Your task to perform on an android device: Search for 24"x36" picture frame on Home Depot. Image 0: 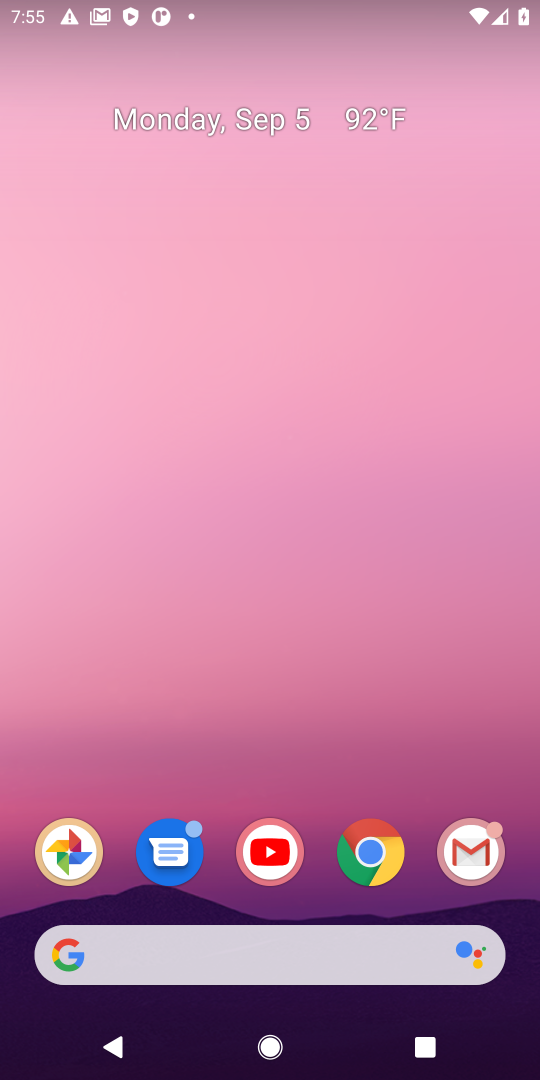
Step 0: click (369, 857)
Your task to perform on an android device: Search for 24"x36" picture frame on Home Depot. Image 1: 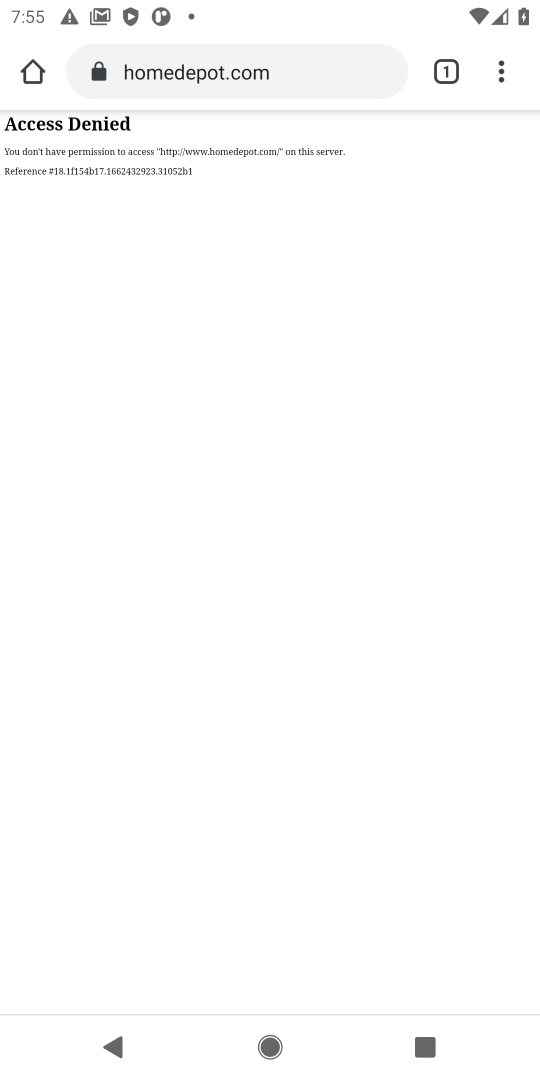
Step 1: click (378, 83)
Your task to perform on an android device: Search for 24"x36" picture frame on Home Depot. Image 2: 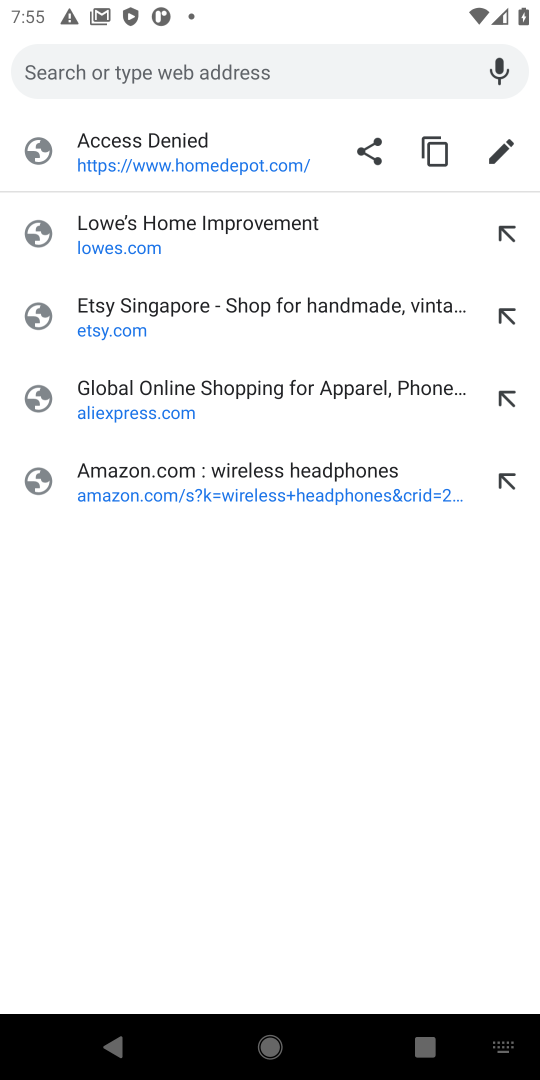
Step 2: type "home depot"
Your task to perform on an android device: Search for 24"x36" picture frame on Home Depot. Image 3: 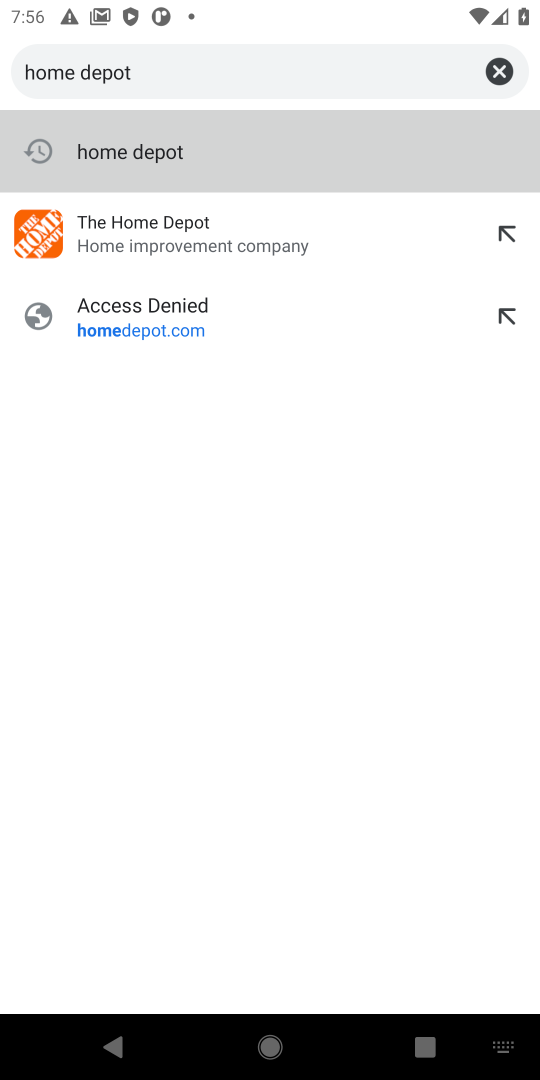
Step 3: press enter
Your task to perform on an android device: Search for 24"x36" picture frame on Home Depot. Image 4: 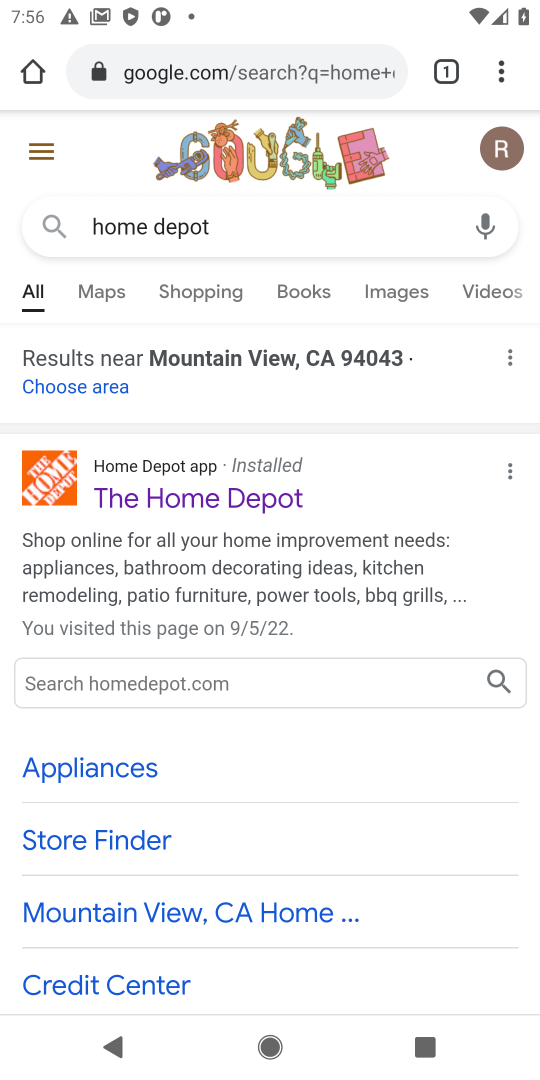
Step 4: click (240, 491)
Your task to perform on an android device: Search for 24"x36" picture frame on Home Depot. Image 5: 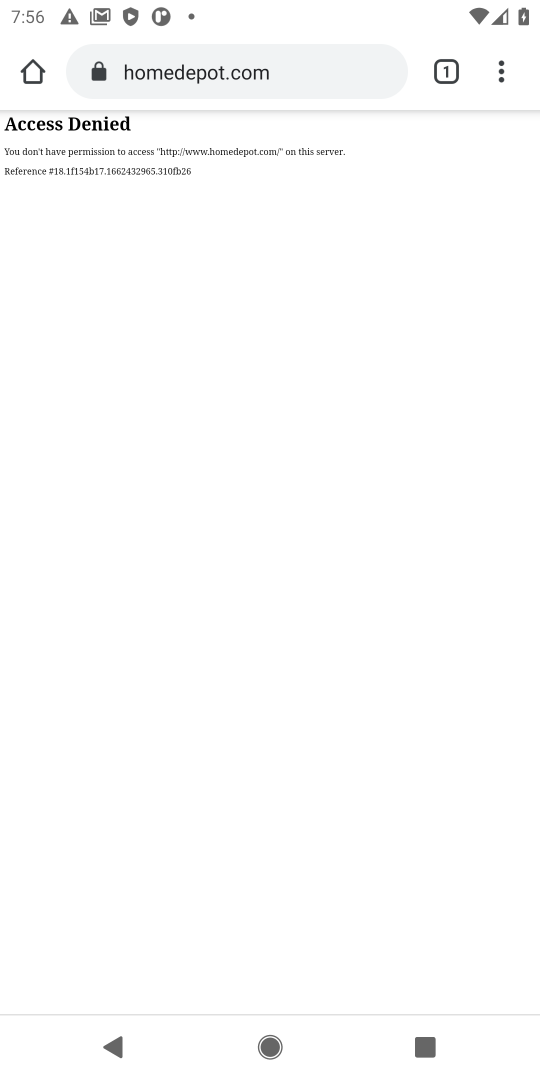
Step 5: press back button
Your task to perform on an android device: Search for 24"x36" picture frame on Home Depot. Image 6: 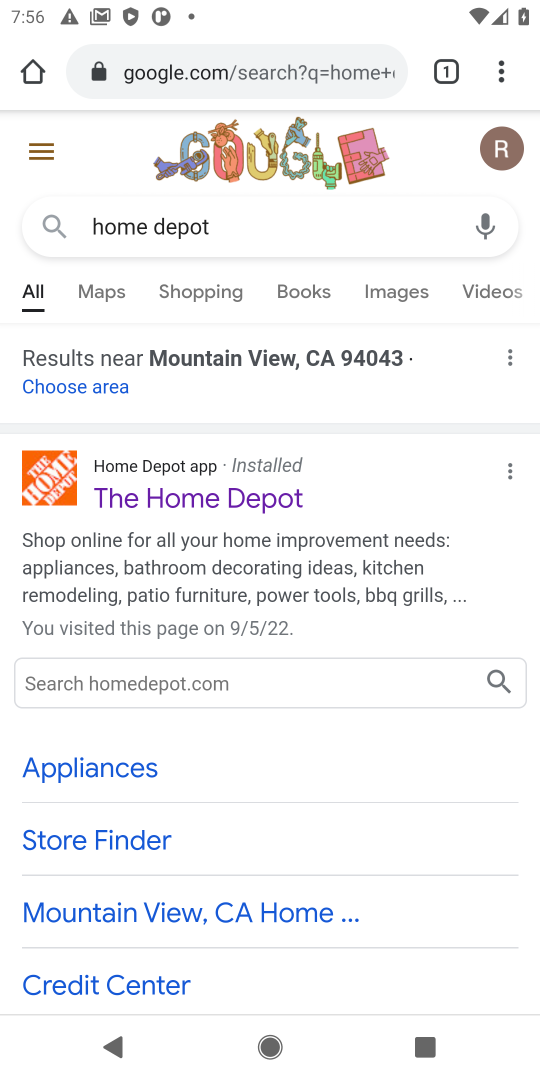
Step 6: click (261, 497)
Your task to perform on an android device: Search for 24"x36" picture frame on Home Depot. Image 7: 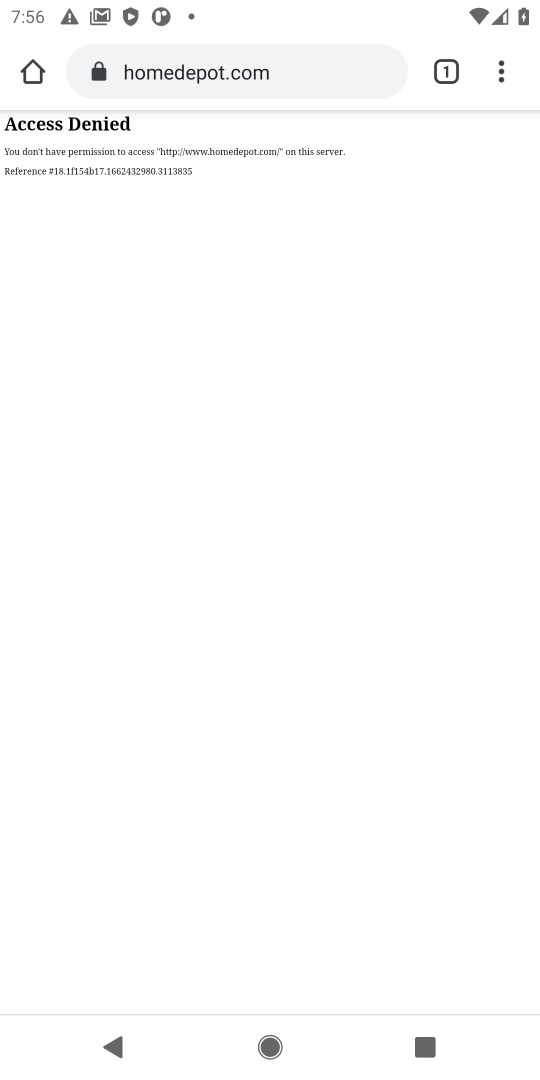
Step 7: press back button
Your task to perform on an android device: Search for 24"x36" picture frame on Home Depot. Image 8: 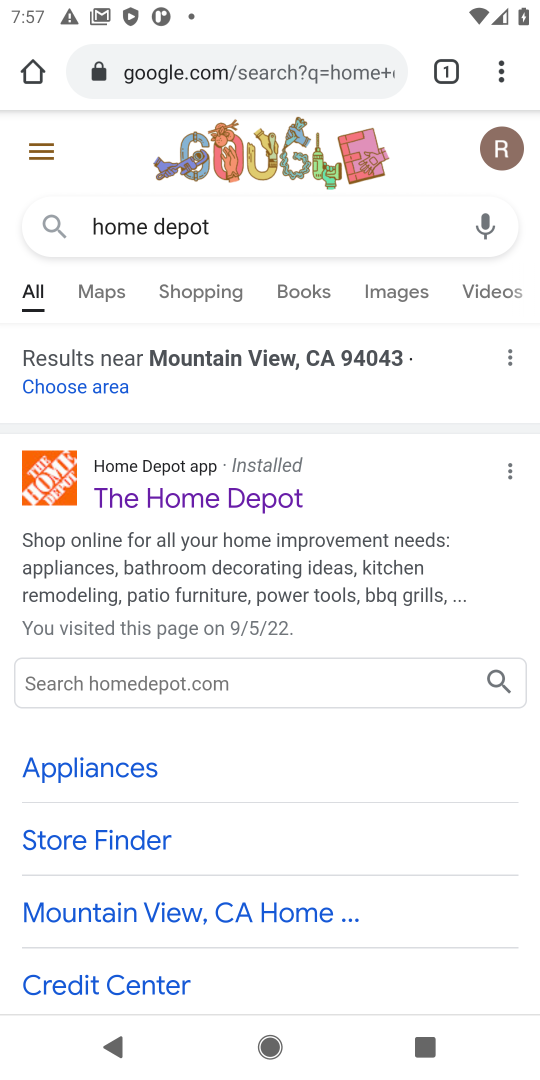
Step 8: click (210, 493)
Your task to perform on an android device: Search for 24"x36" picture frame on Home Depot. Image 9: 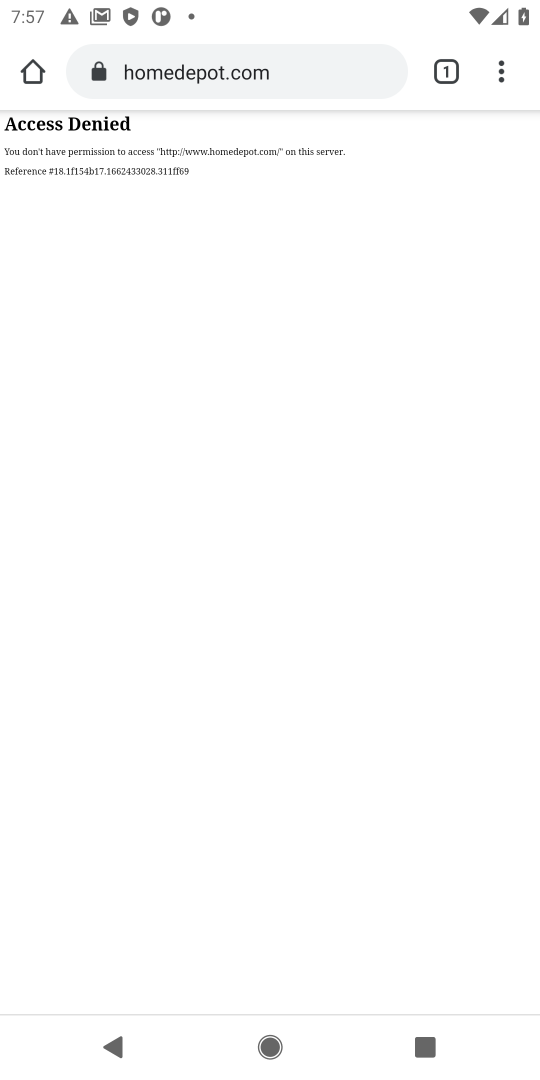
Step 9: press back button
Your task to perform on an android device: Search for 24"x36" picture frame on Home Depot. Image 10: 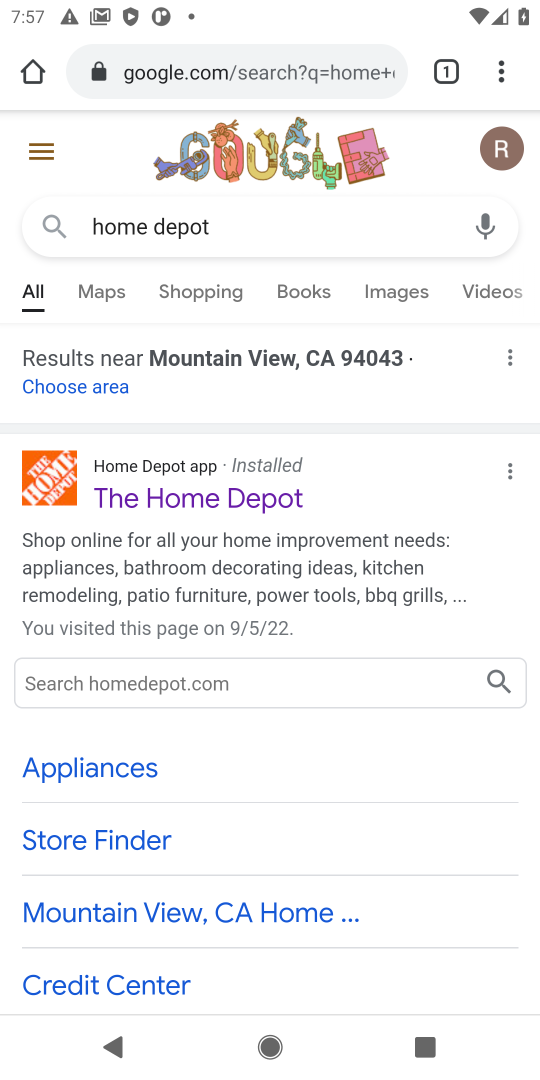
Step 10: click (240, 512)
Your task to perform on an android device: Search for 24"x36" picture frame on Home Depot. Image 11: 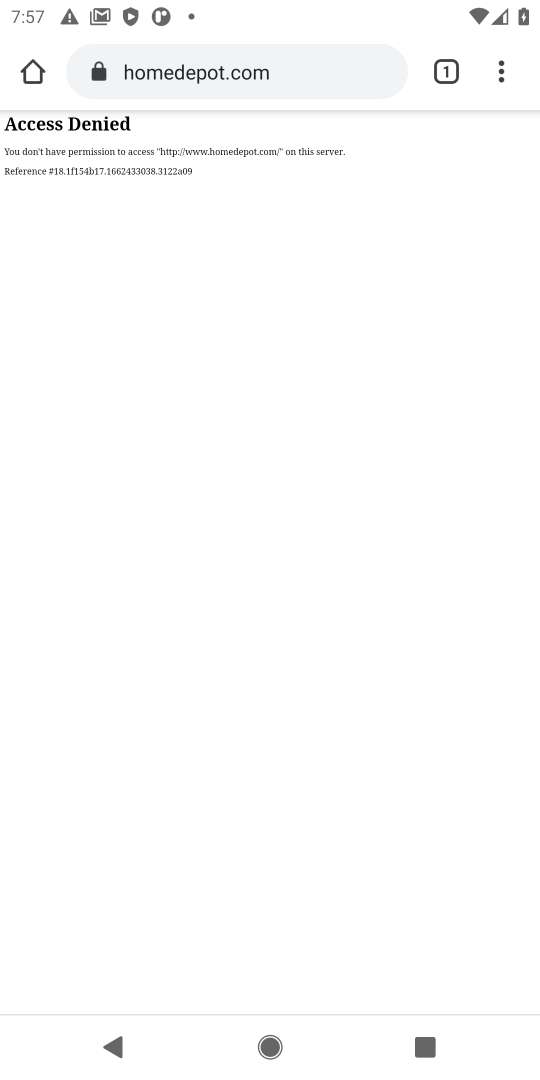
Step 11: task complete